Your task to perform on an android device: Find coffee shops on Maps Image 0: 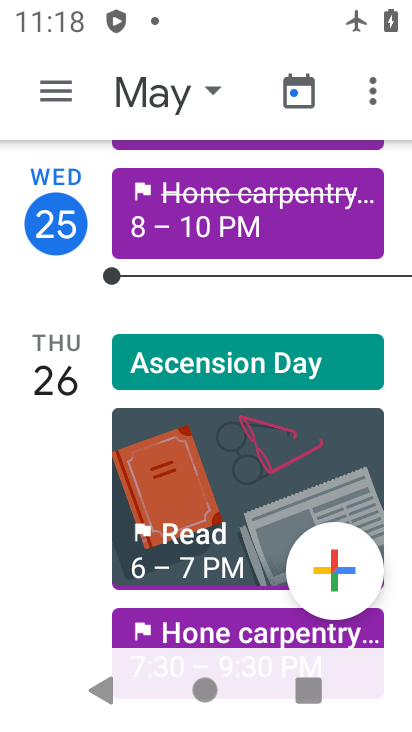
Step 0: press home button
Your task to perform on an android device: Find coffee shops on Maps Image 1: 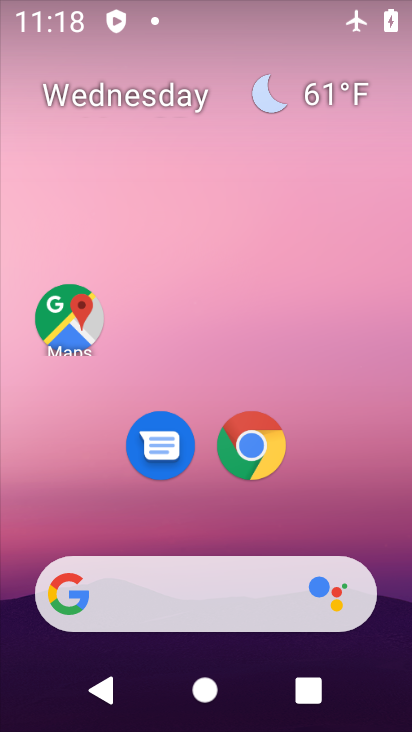
Step 1: drag from (373, 530) to (354, 180)
Your task to perform on an android device: Find coffee shops on Maps Image 2: 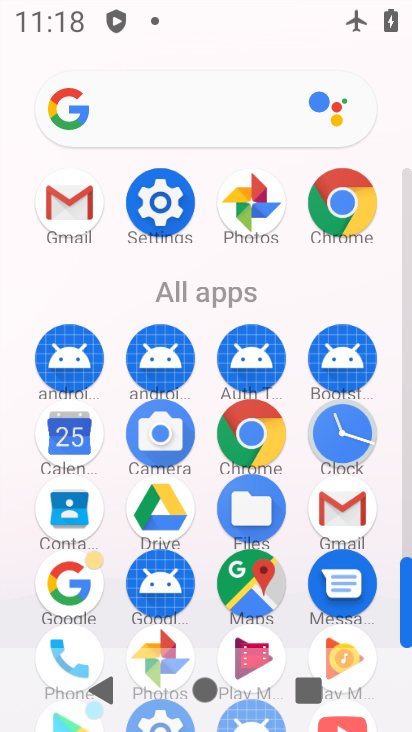
Step 2: click (263, 592)
Your task to perform on an android device: Find coffee shops on Maps Image 3: 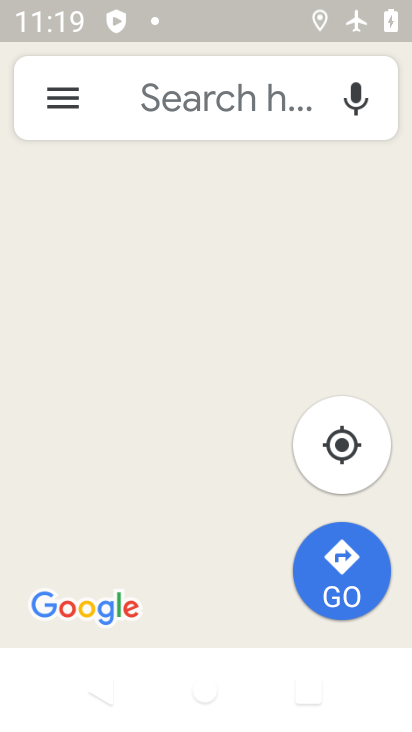
Step 3: click (196, 79)
Your task to perform on an android device: Find coffee shops on Maps Image 4: 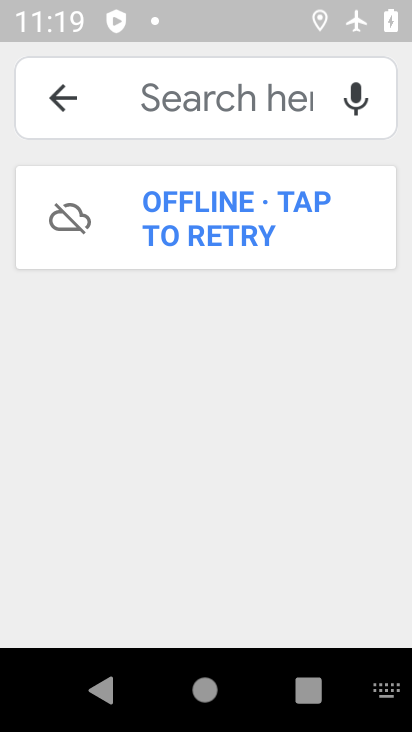
Step 4: type "coffee shop"
Your task to perform on an android device: Find coffee shops on Maps Image 5: 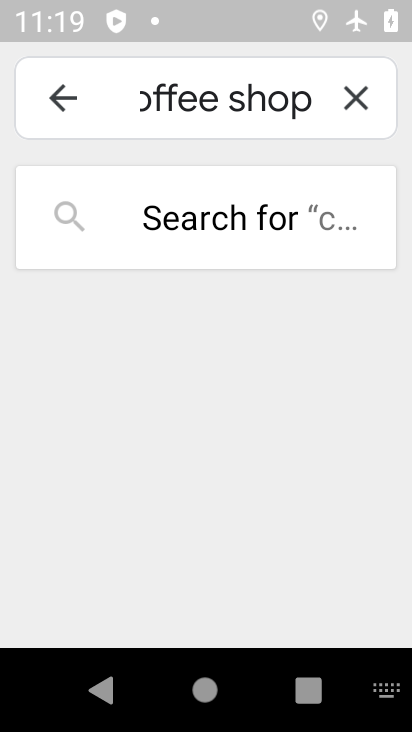
Step 5: click (204, 221)
Your task to perform on an android device: Find coffee shops on Maps Image 6: 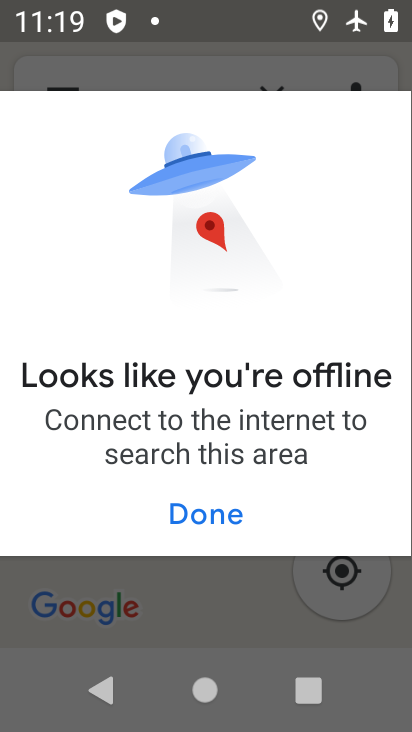
Step 6: task complete